Your task to perform on an android device: Open Chrome and go to settings Image 0: 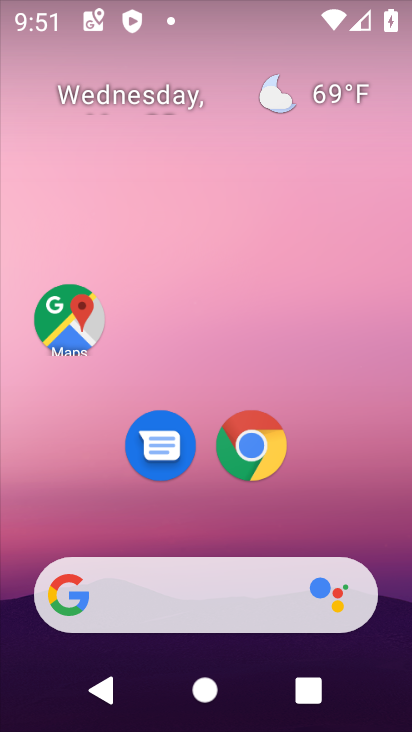
Step 0: click (232, 437)
Your task to perform on an android device: Open Chrome and go to settings Image 1: 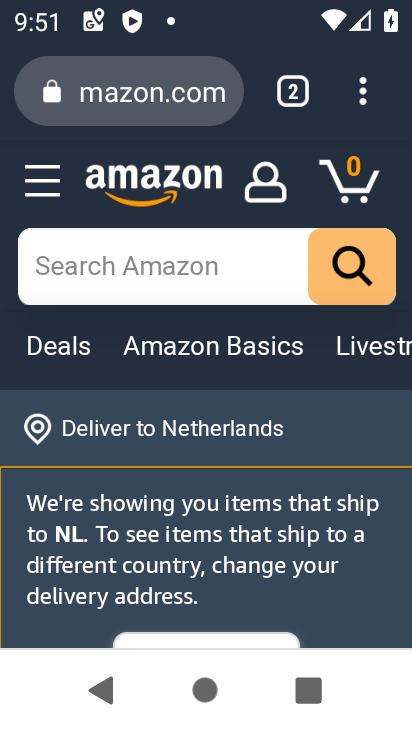
Step 1: click (385, 72)
Your task to perform on an android device: Open Chrome and go to settings Image 2: 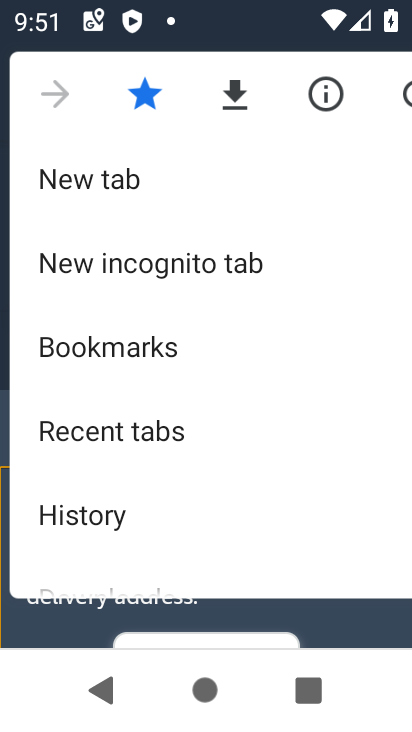
Step 2: drag from (198, 532) to (164, 268)
Your task to perform on an android device: Open Chrome and go to settings Image 3: 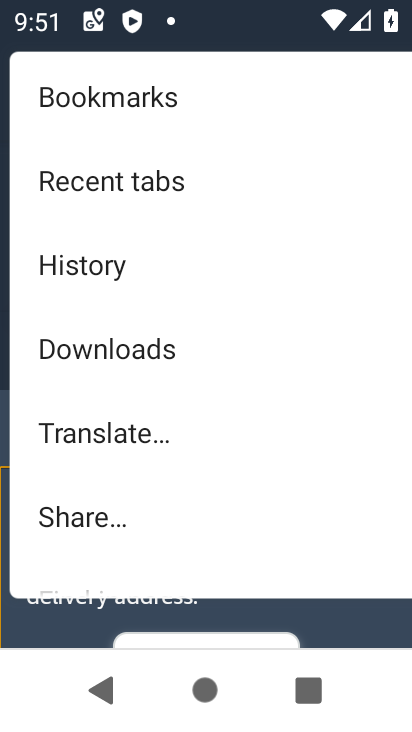
Step 3: click (106, 565)
Your task to perform on an android device: Open Chrome and go to settings Image 4: 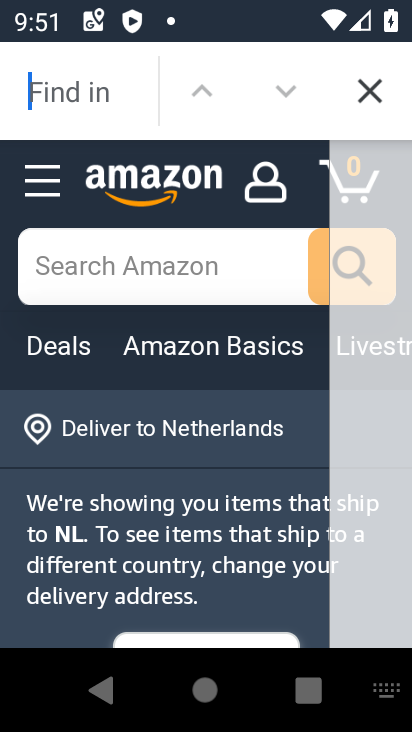
Step 4: drag from (107, 534) to (139, 342)
Your task to perform on an android device: Open Chrome and go to settings Image 5: 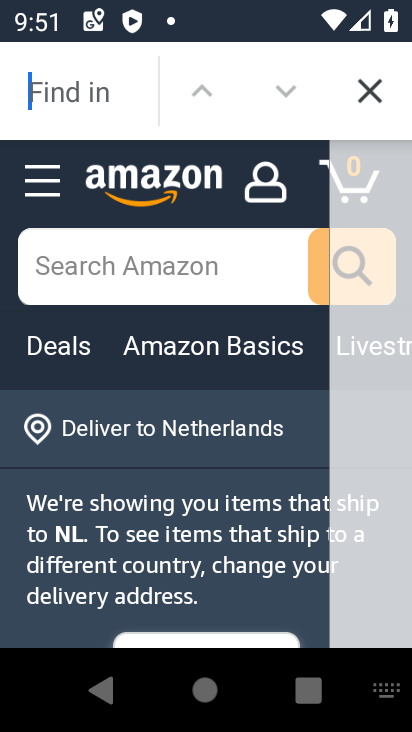
Step 5: click (384, 95)
Your task to perform on an android device: Open Chrome and go to settings Image 6: 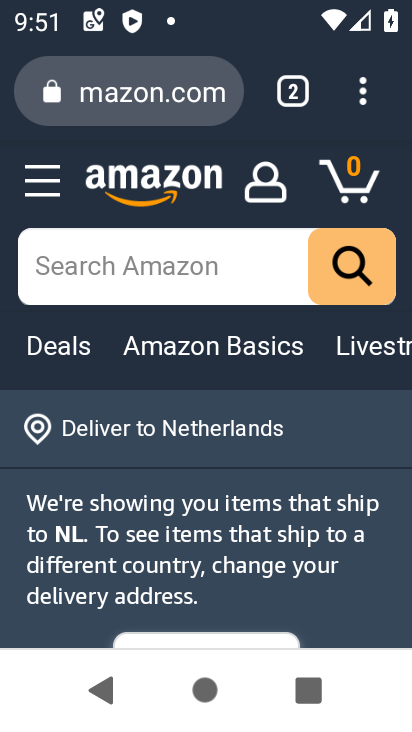
Step 6: click (370, 91)
Your task to perform on an android device: Open Chrome and go to settings Image 7: 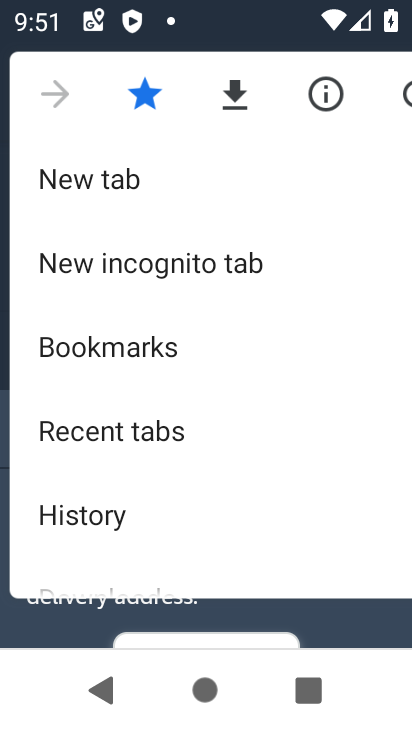
Step 7: drag from (267, 510) to (294, 172)
Your task to perform on an android device: Open Chrome and go to settings Image 8: 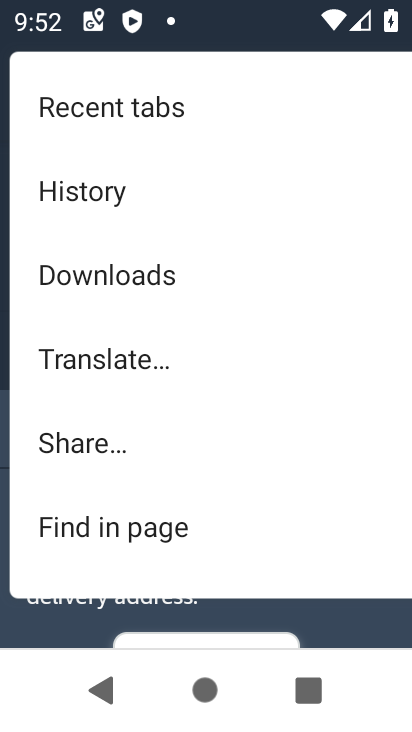
Step 8: drag from (273, 551) to (283, 109)
Your task to perform on an android device: Open Chrome and go to settings Image 9: 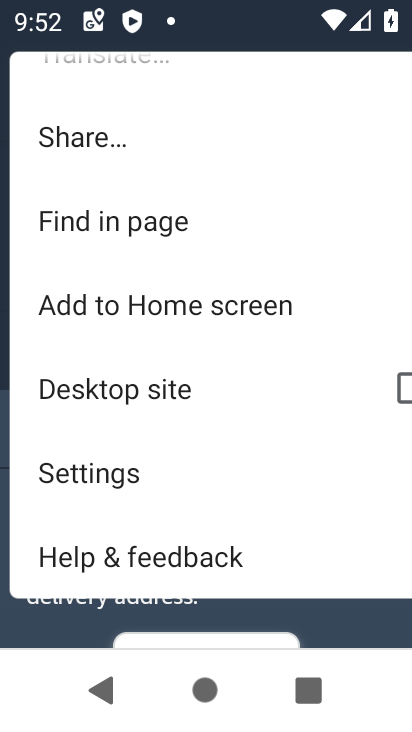
Step 9: click (107, 477)
Your task to perform on an android device: Open Chrome and go to settings Image 10: 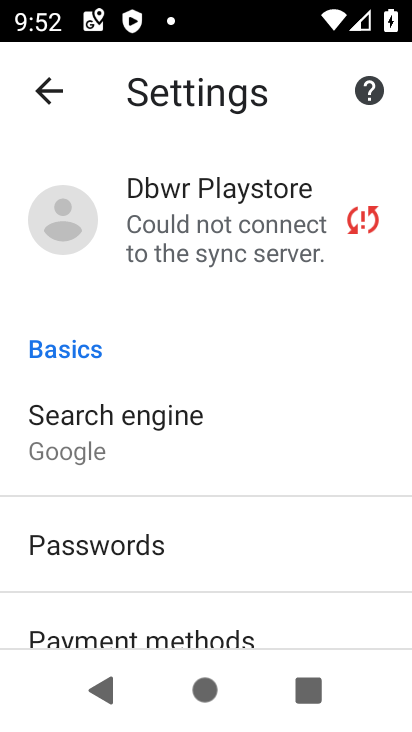
Step 10: task complete